Your task to perform on an android device: turn on bluetooth scan Image 0: 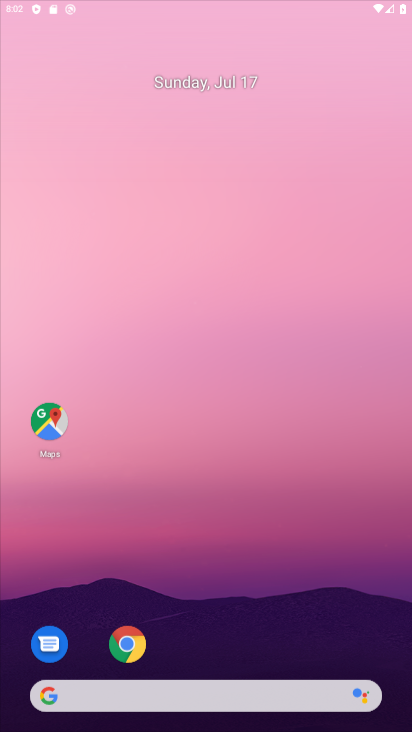
Step 0: press back button
Your task to perform on an android device: turn on bluetooth scan Image 1: 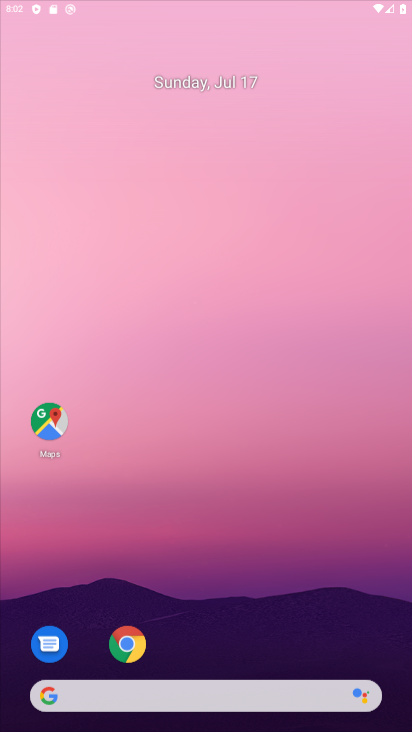
Step 1: drag from (247, 12) to (157, 24)
Your task to perform on an android device: turn on bluetooth scan Image 2: 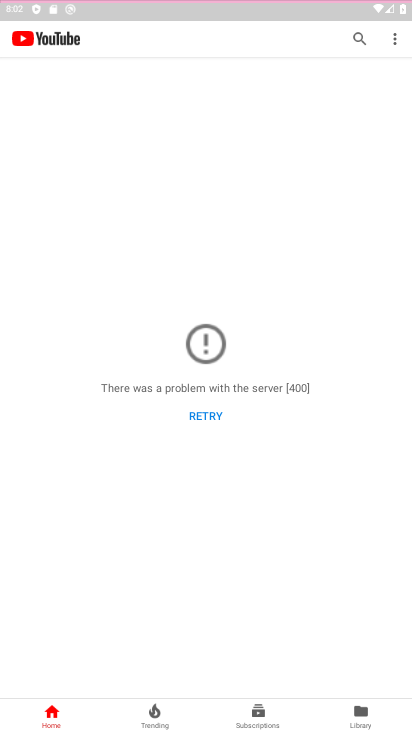
Step 2: drag from (115, 122) to (115, 26)
Your task to perform on an android device: turn on bluetooth scan Image 3: 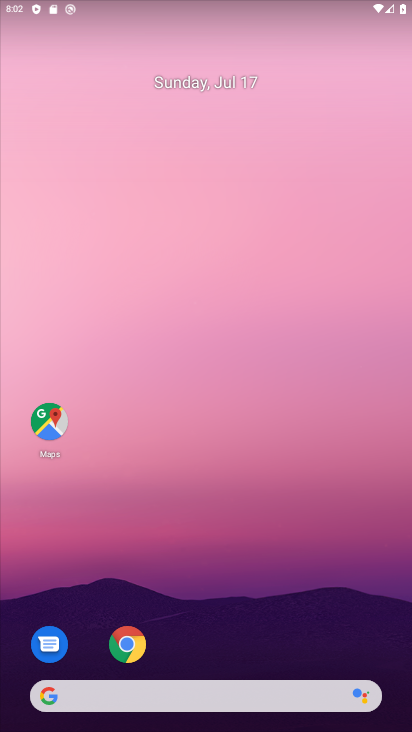
Step 3: drag from (262, 110) to (312, 12)
Your task to perform on an android device: turn on bluetooth scan Image 4: 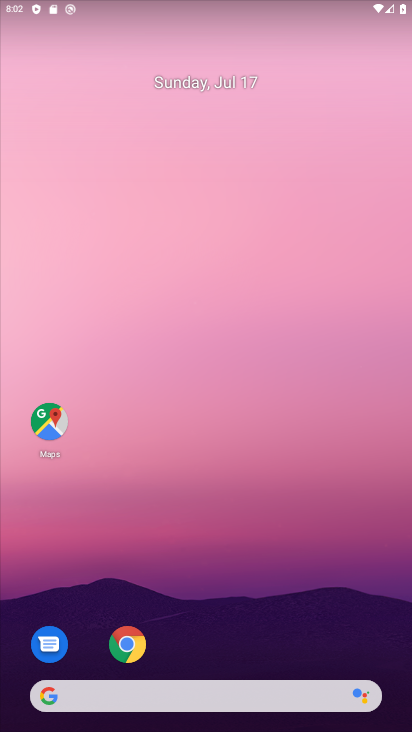
Step 4: drag from (204, 556) to (209, 59)
Your task to perform on an android device: turn on bluetooth scan Image 5: 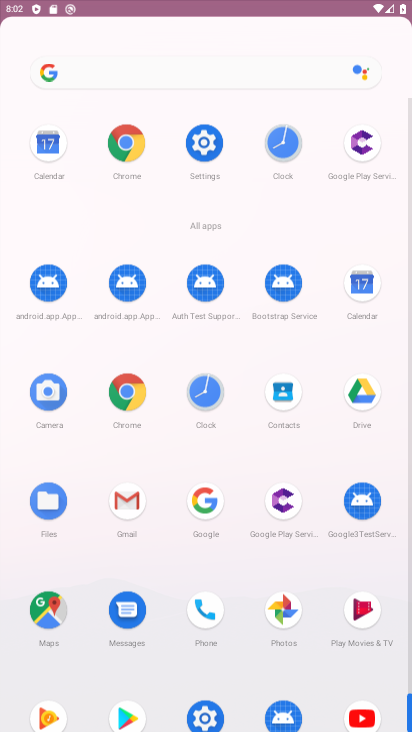
Step 5: drag from (167, 707) to (191, 138)
Your task to perform on an android device: turn on bluetooth scan Image 6: 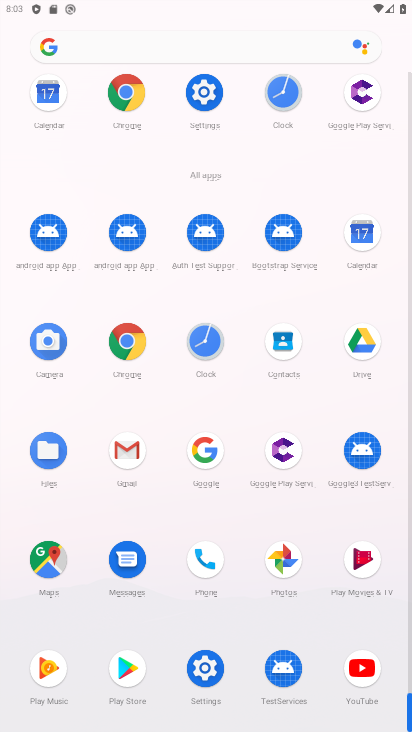
Step 6: click (201, 94)
Your task to perform on an android device: turn on bluetooth scan Image 7: 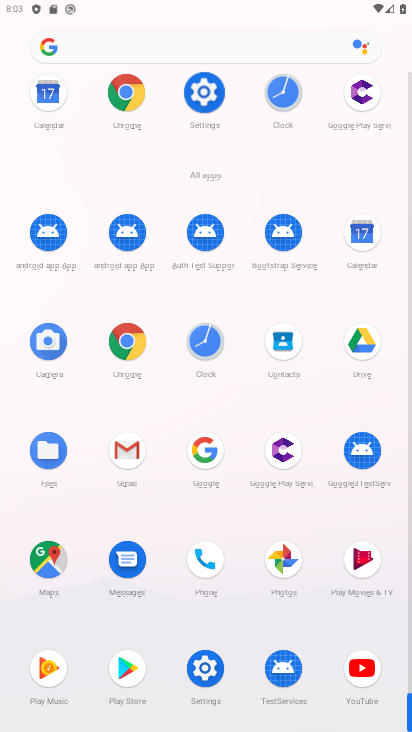
Step 7: click (210, 90)
Your task to perform on an android device: turn on bluetooth scan Image 8: 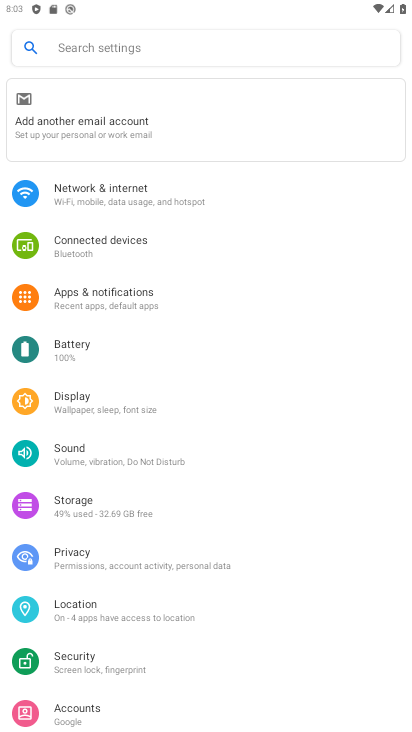
Step 8: drag from (137, 525) to (124, 191)
Your task to perform on an android device: turn on bluetooth scan Image 9: 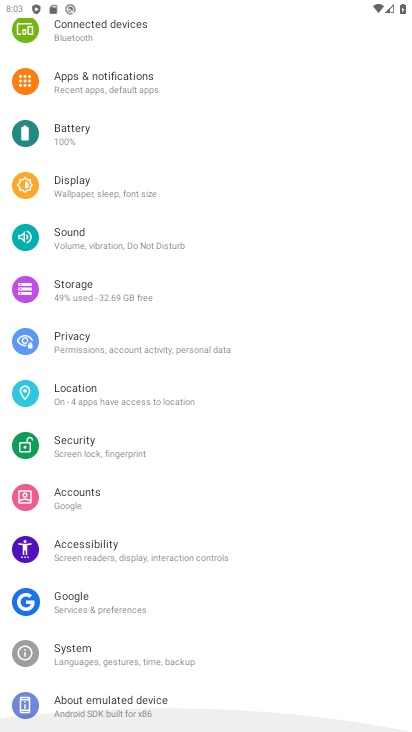
Step 9: drag from (119, 559) to (177, 175)
Your task to perform on an android device: turn on bluetooth scan Image 10: 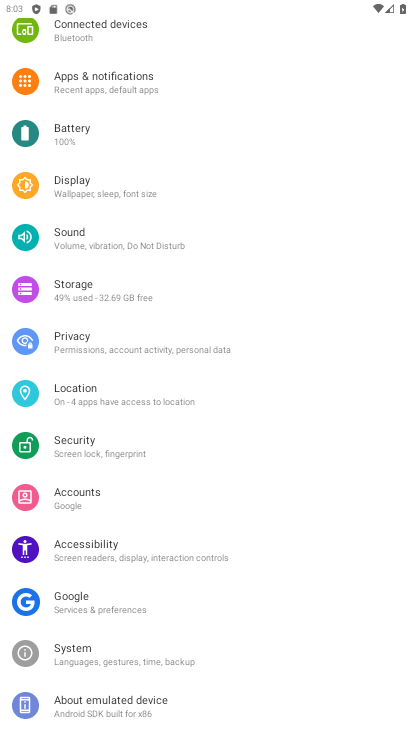
Step 10: click (77, 388)
Your task to perform on an android device: turn on bluetooth scan Image 11: 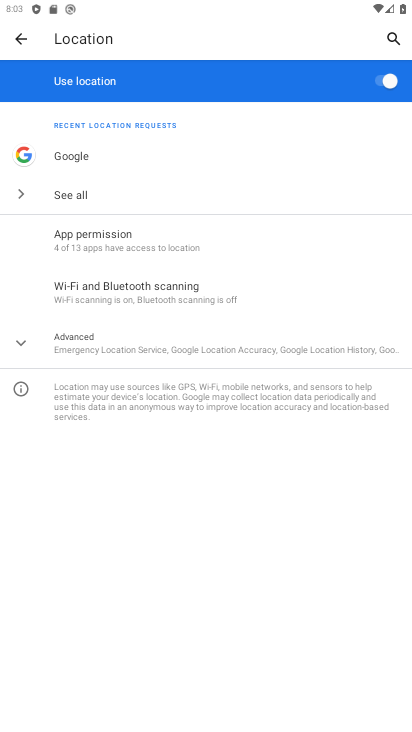
Step 11: click (138, 302)
Your task to perform on an android device: turn on bluetooth scan Image 12: 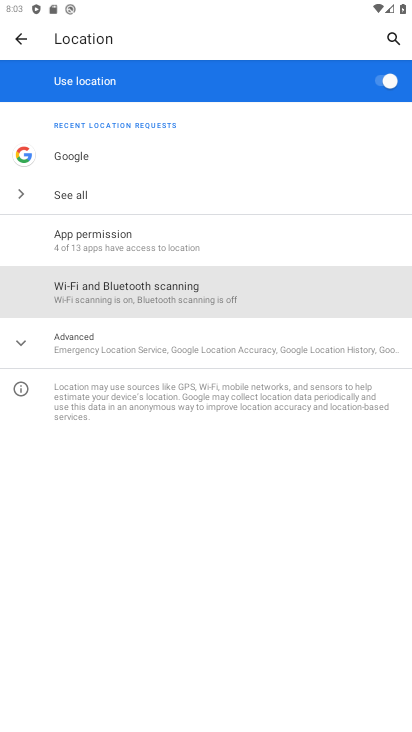
Step 12: click (139, 303)
Your task to perform on an android device: turn on bluetooth scan Image 13: 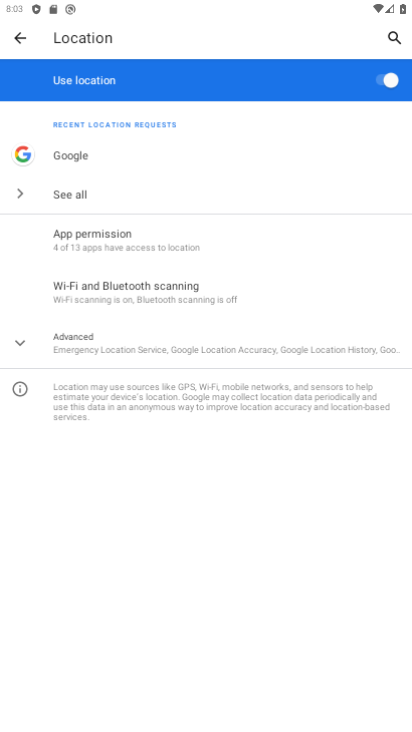
Step 13: click (139, 305)
Your task to perform on an android device: turn on bluetooth scan Image 14: 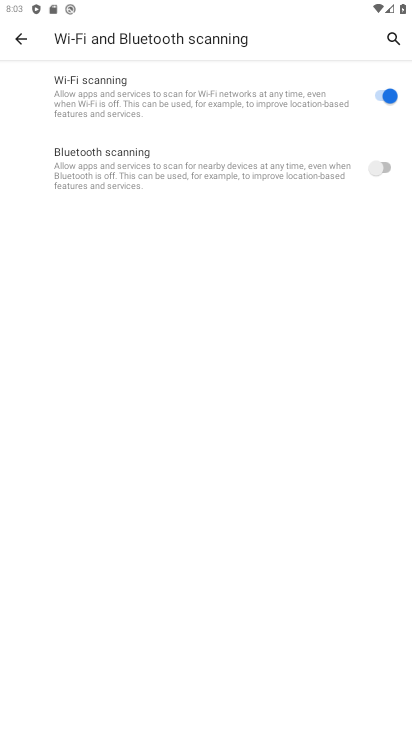
Step 14: click (378, 168)
Your task to perform on an android device: turn on bluetooth scan Image 15: 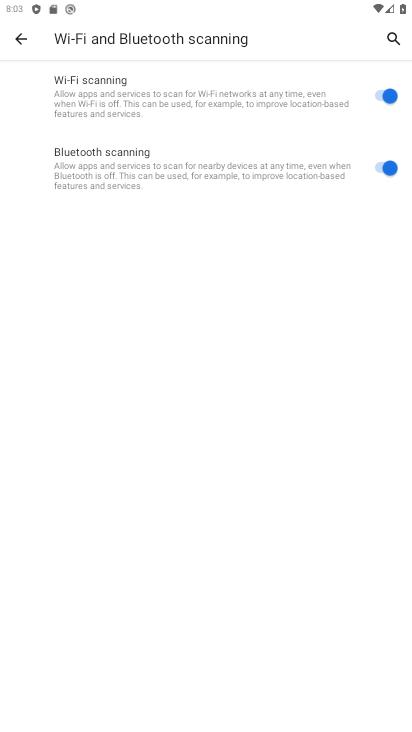
Step 15: task complete